Your task to perform on an android device: move a message to another label in the gmail app Image 0: 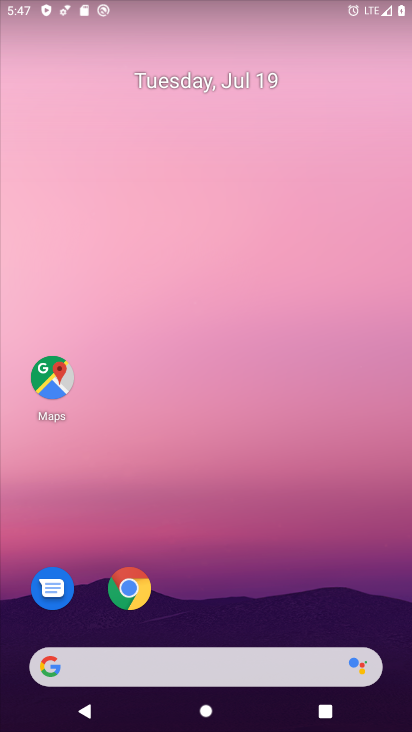
Step 0: drag from (231, 233) to (207, 7)
Your task to perform on an android device: move a message to another label in the gmail app Image 1: 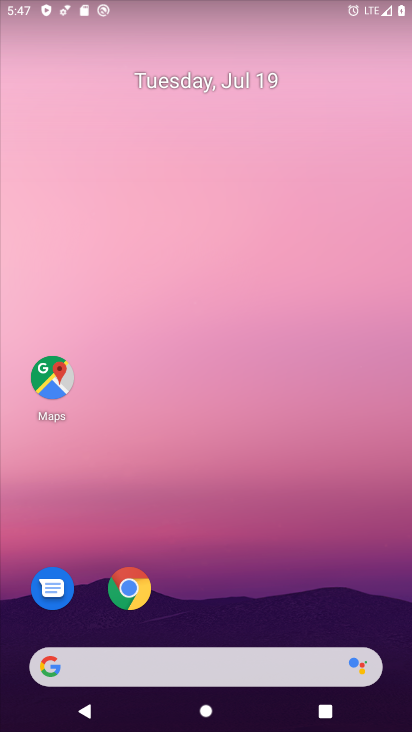
Step 1: drag from (197, 618) to (164, 139)
Your task to perform on an android device: move a message to another label in the gmail app Image 2: 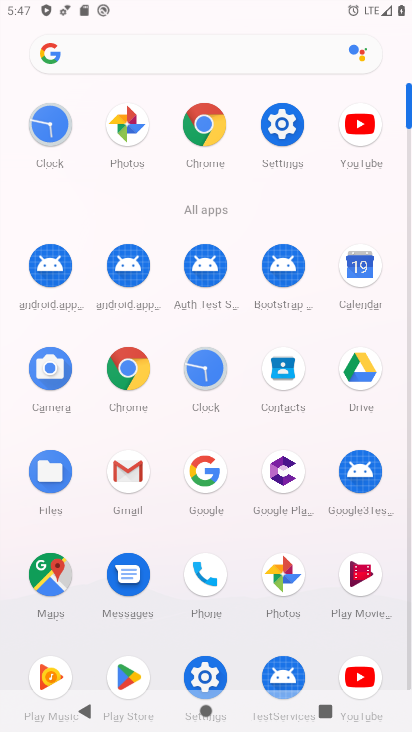
Step 2: click (137, 472)
Your task to perform on an android device: move a message to another label in the gmail app Image 3: 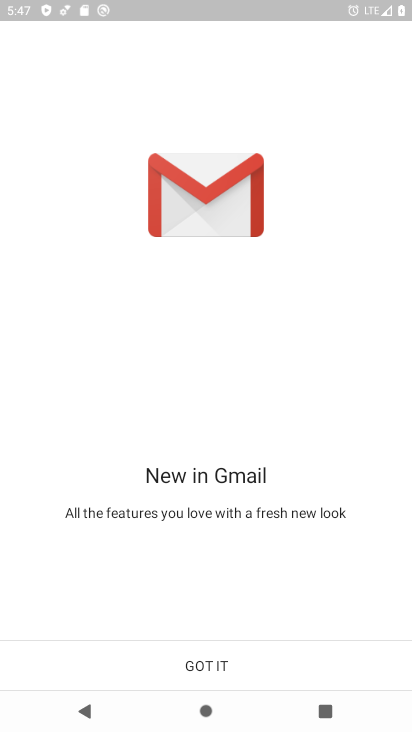
Step 3: click (234, 676)
Your task to perform on an android device: move a message to another label in the gmail app Image 4: 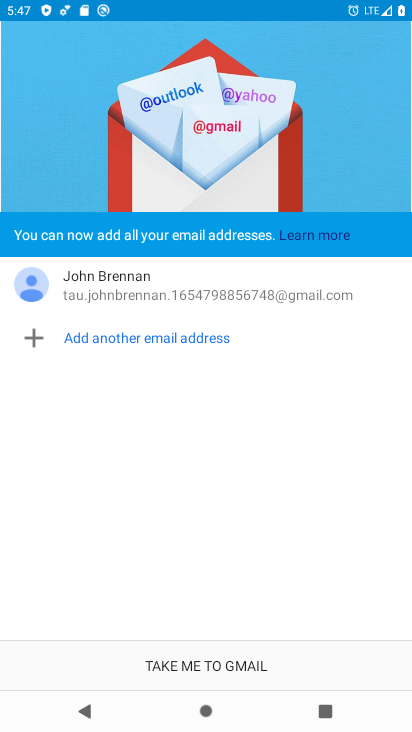
Step 4: click (234, 676)
Your task to perform on an android device: move a message to another label in the gmail app Image 5: 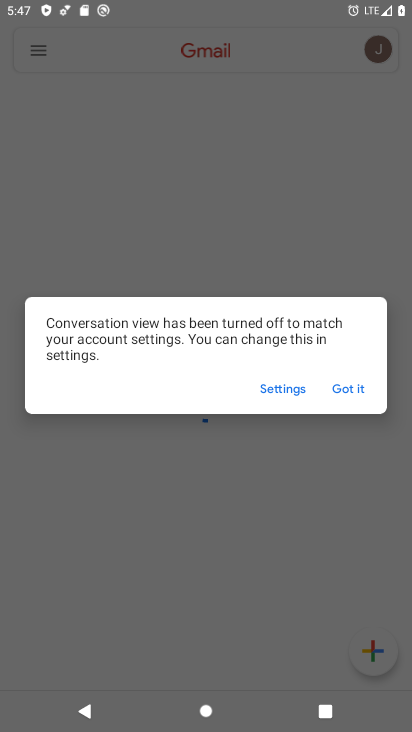
Step 5: click (351, 394)
Your task to perform on an android device: move a message to another label in the gmail app Image 6: 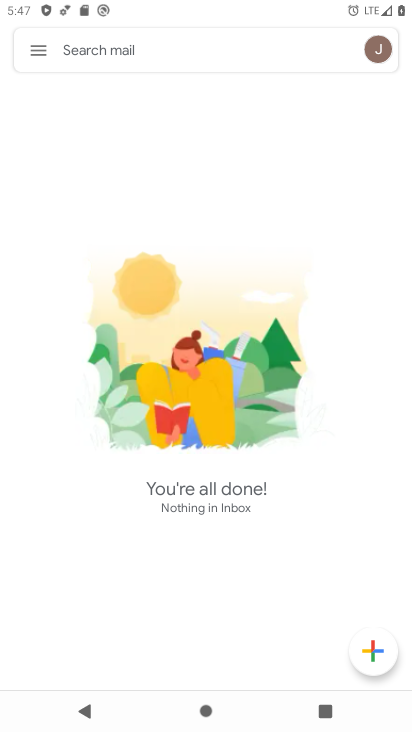
Step 6: task complete